Your task to perform on an android device: toggle pop-ups in chrome Image 0: 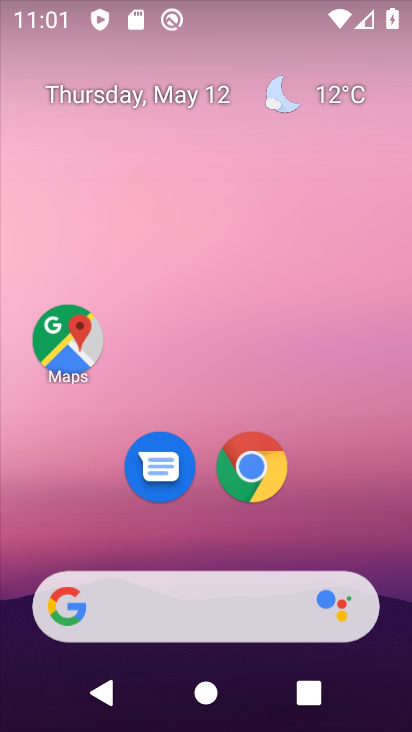
Step 0: click (243, 464)
Your task to perform on an android device: toggle pop-ups in chrome Image 1: 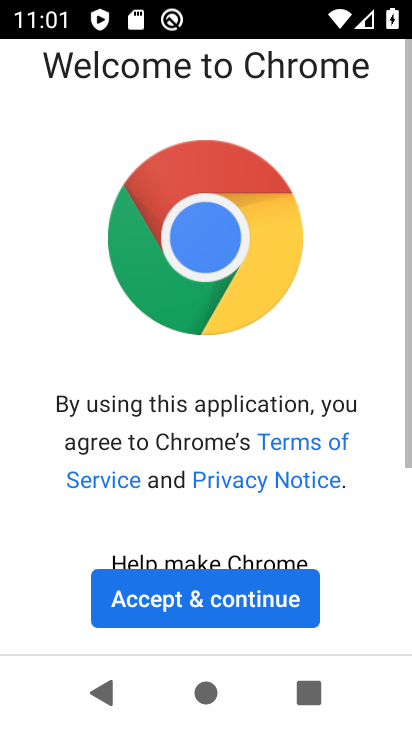
Step 1: click (210, 593)
Your task to perform on an android device: toggle pop-ups in chrome Image 2: 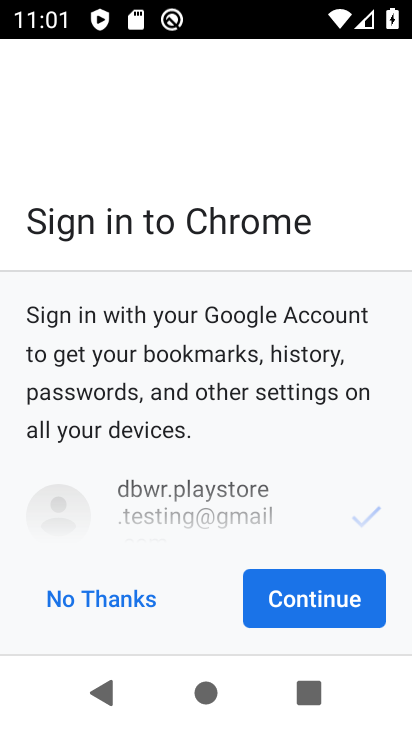
Step 2: click (275, 581)
Your task to perform on an android device: toggle pop-ups in chrome Image 3: 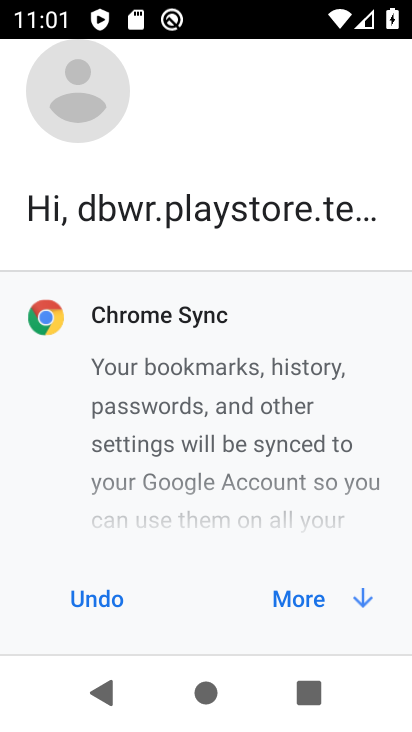
Step 3: click (282, 591)
Your task to perform on an android device: toggle pop-ups in chrome Image 4: 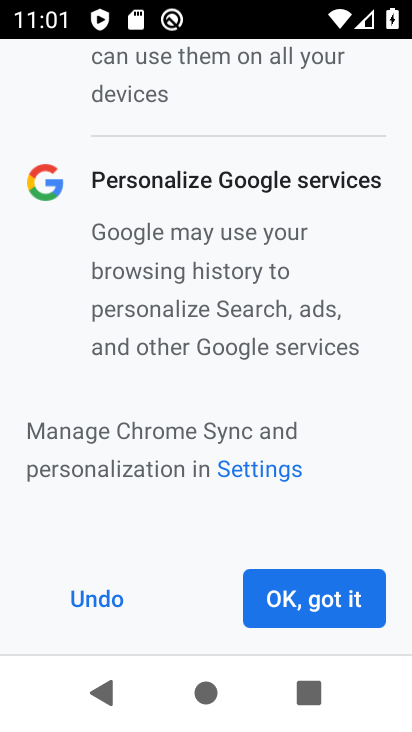
Step 4: click (302, 604)
Your task to perform on an android device: toggle pop-ups in chrome Image 5: 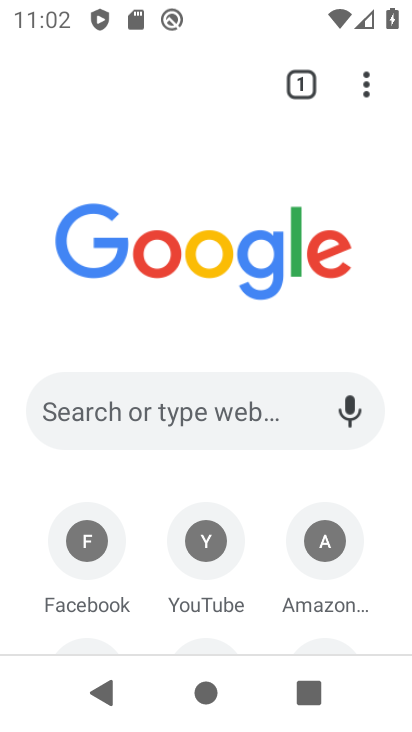
Step 5: drag from (367, 75) to (111, 512)
Your task to perform on an android device: toggle pop-ups in chrome Image 6: 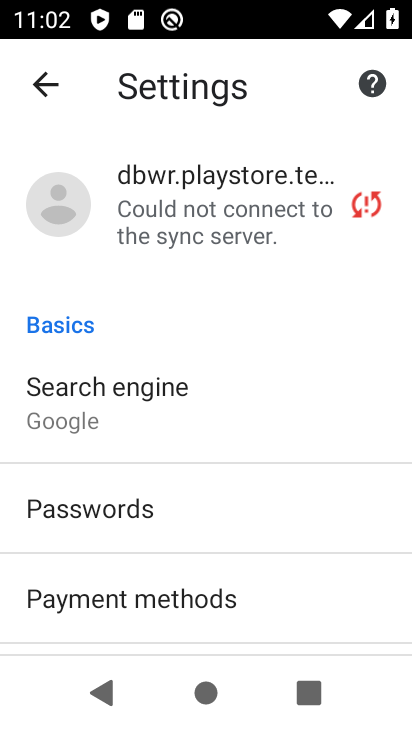
Step 6: drag from (219, 536) to (238, 159)
Your task to perform on an android device: toggle pop-ups in chrome Image 7: 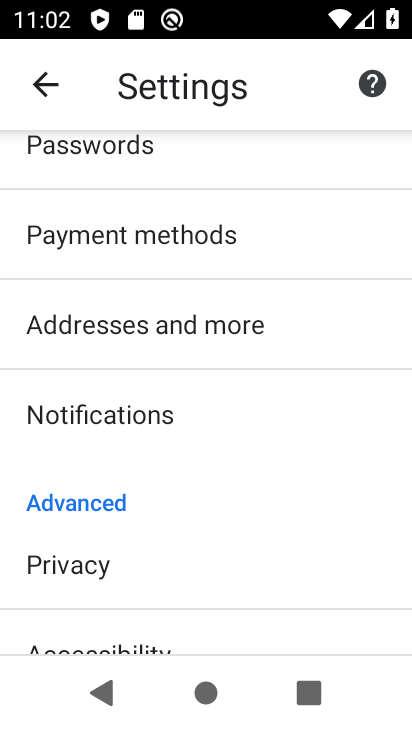
Step 7: drag from (230, 538) to (230, 257)
Your task to perform on an android device: toggle pop-ups in chrome Image 8: 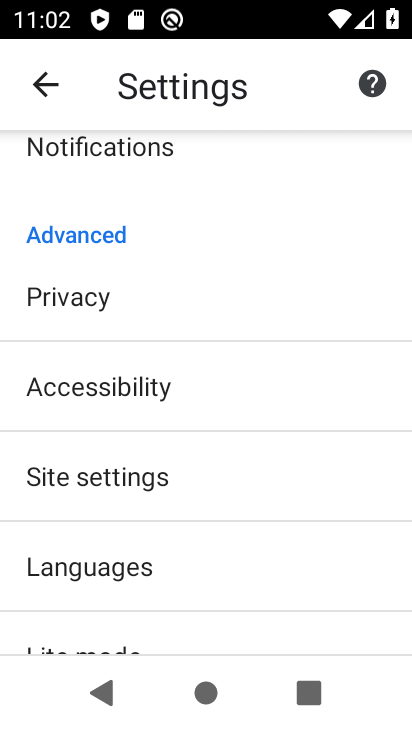
Step 8: click (173, 476)
Your task to perform on an android device: toggle pop-ups in chrome Image 9: 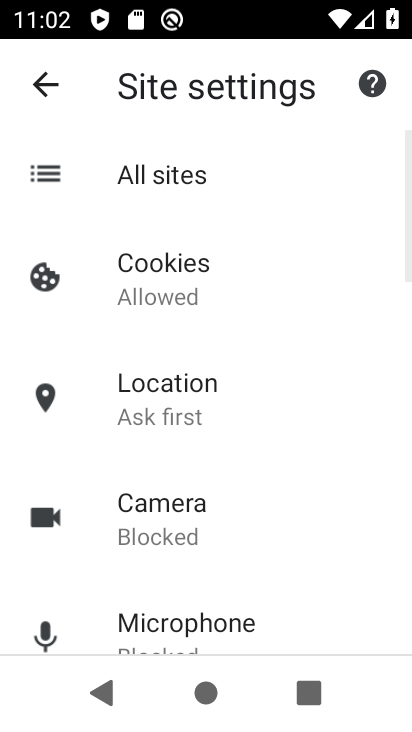
Step 9: drag from (261, 534) to (248, 174)
Your task to perform on an android device: toggle pop-ups in chrome Image 10: 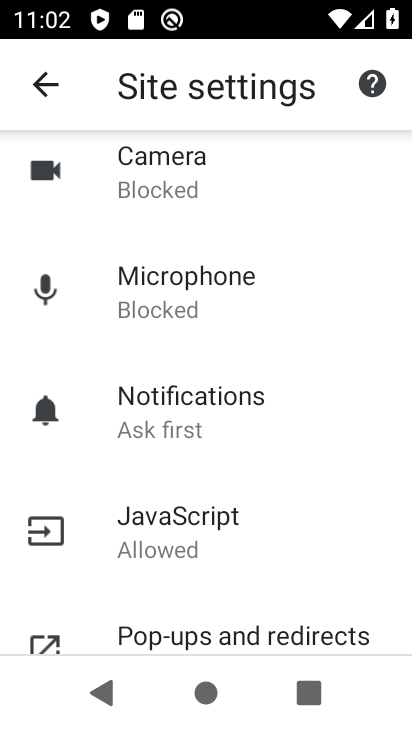
Step 10: drag from (253, 571) to (270, 274)
Your task to perform on an android device: toggle pop-ups in chrome Image 11: 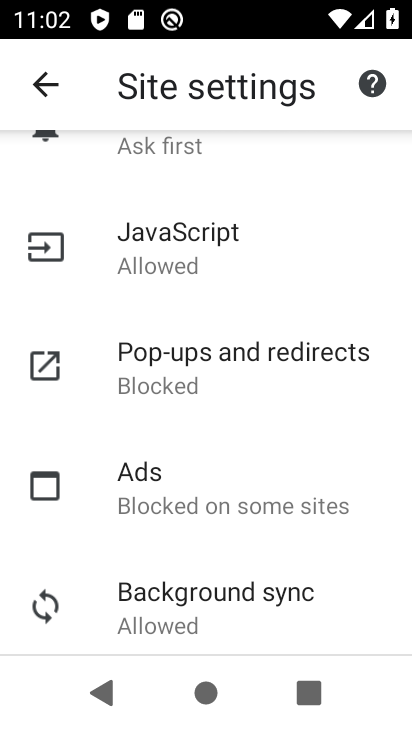
Step 11: click (237, 348)
Your task to perform on an android device: toggle pop-ups in chrome Image 12: 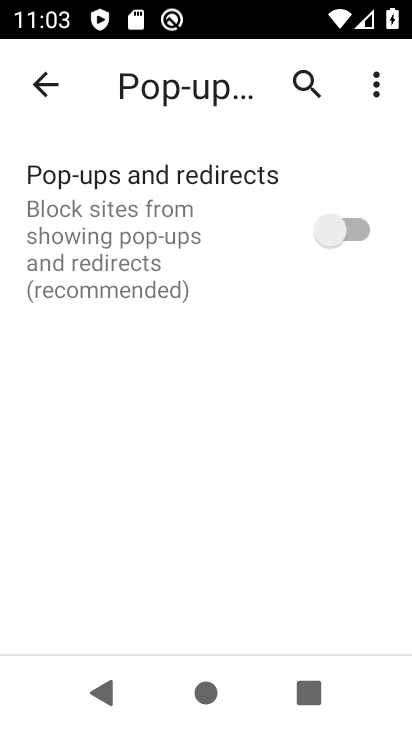
Step 12: click (335, 210)
Your task to perform on an android device: toggle pop-ups in chrome Image 13: 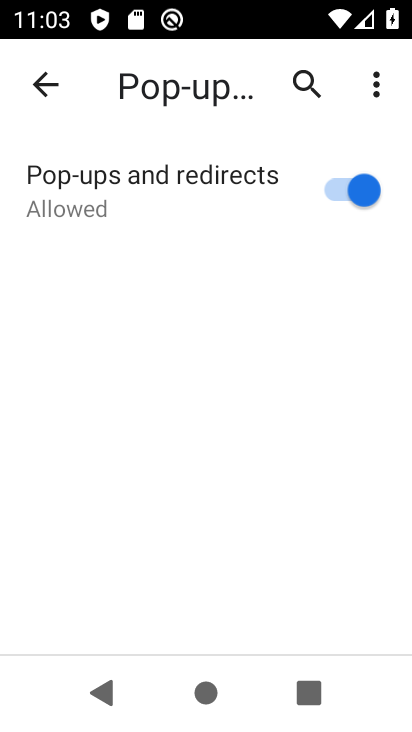
Step 13: task complete